Your task to perform on an android device: turn smart compose on in the gmail app Image 0: 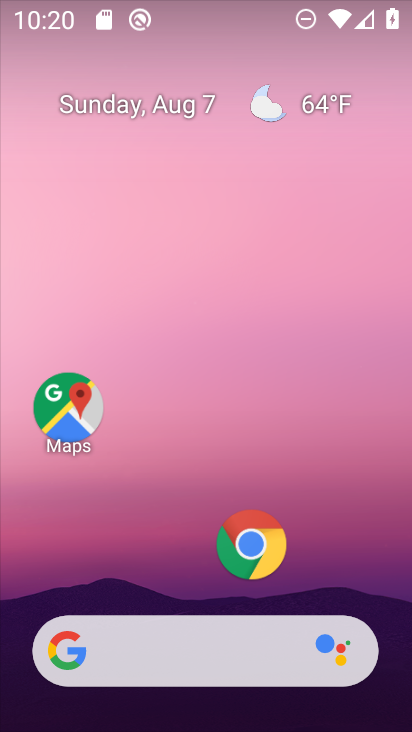
Step 0: drag from (231, 611) to (389, 15)
Your task to perform on an android device: turn smart compose on in the gmail app Image 1: 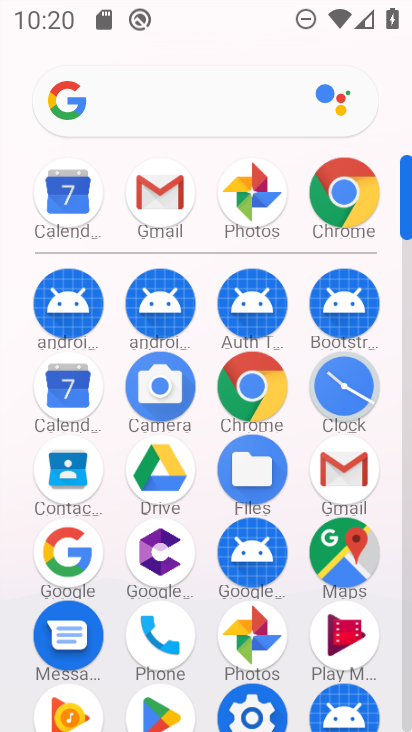
Step 1: click (332, 482)
Your task to perform on an android device: turn smart compose on in the gmail app Image 2: 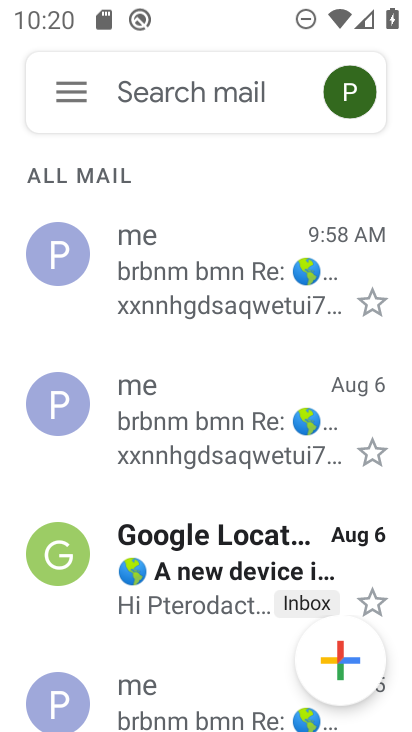
Step 2: click (61, 86)
Your task to perform on an android device: turn smart compose on in the gmail app Image 3: 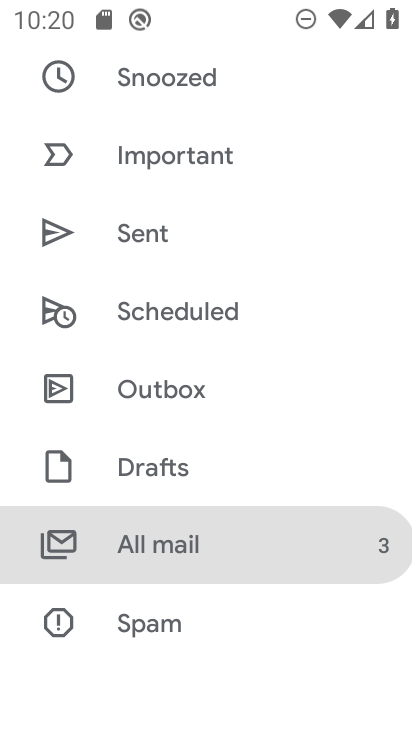
Step 3: drag from (80, 483) to (138, 13)
Your task to perform on an android device: turn smart compose on in the gmail app Image 4: 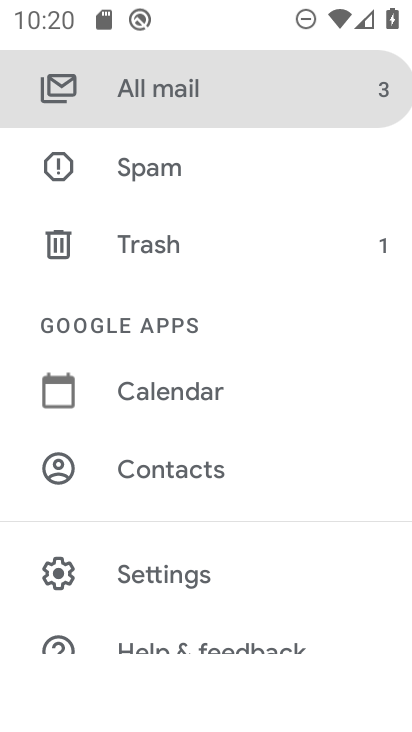
Step 4: drag from (163, 586) to (138, 191)
Your task to perform on an android device: turn smart compose on in the gmail app Image 5: 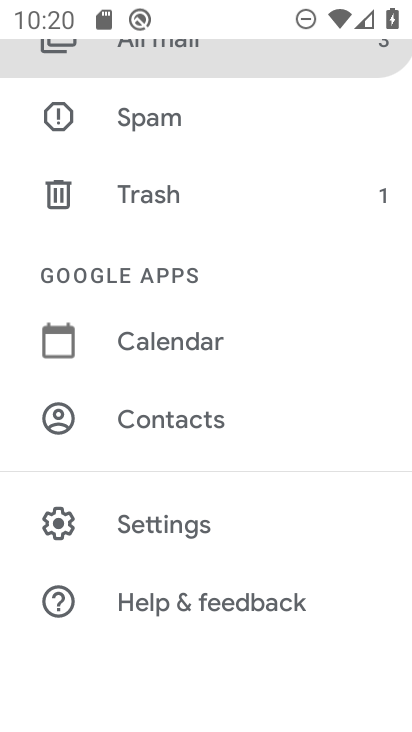
Step 5: click (154, 512)
Your task to perform on an android device: turn smart compose on in the gmail app Image 6: 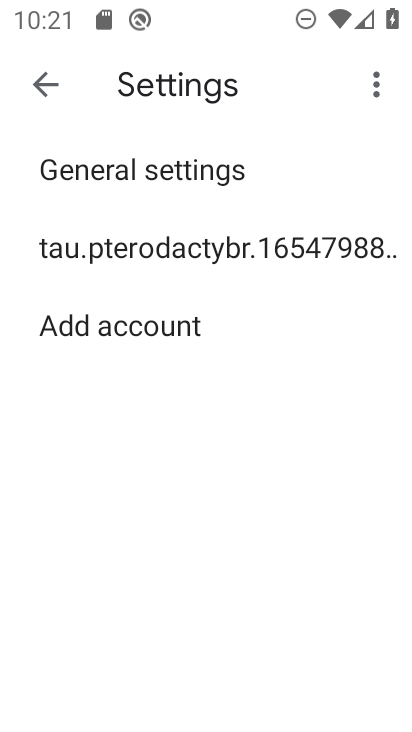
Step 6: click (136, 250)
Your task to perform on an android device: turn smart compose on in the gmail app Image 7: 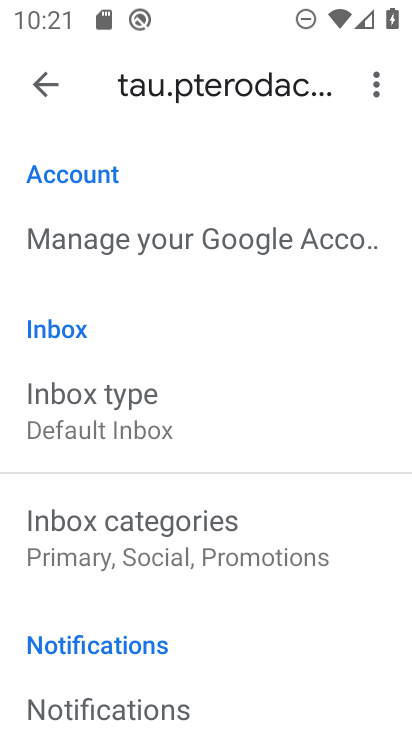
Step 7: task complete